Your task to perform on an android device: Open my contact list Image 0: 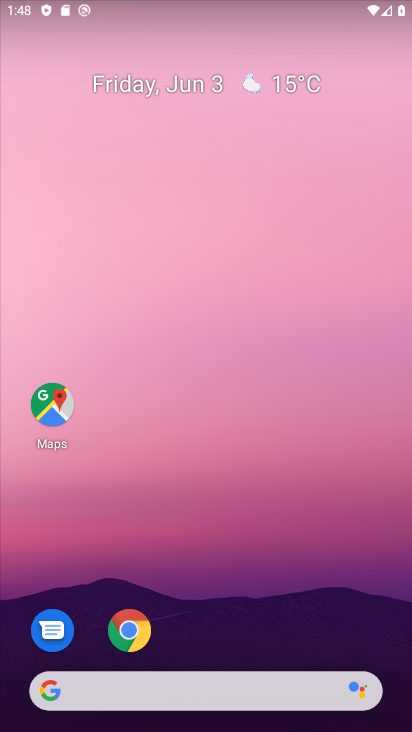
Step 0: drag from (186, 484) to (142, 0)
Your task to perform on an android device: Open my contact list Image 1: 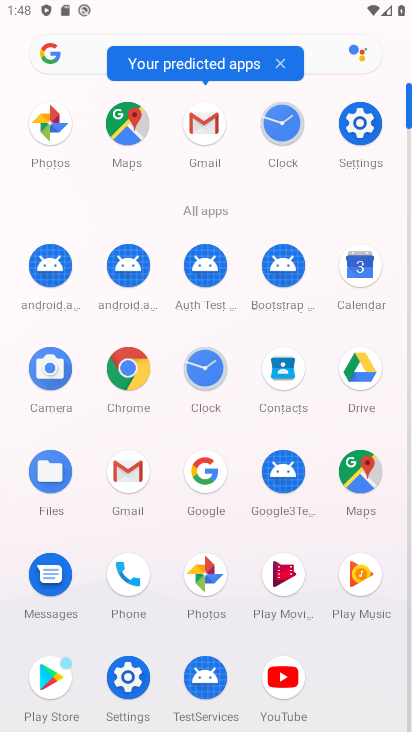
Step 1: drag from (21, 445) to (14, 205)
Your task to perform on an android device: Open my contact list Image 2: 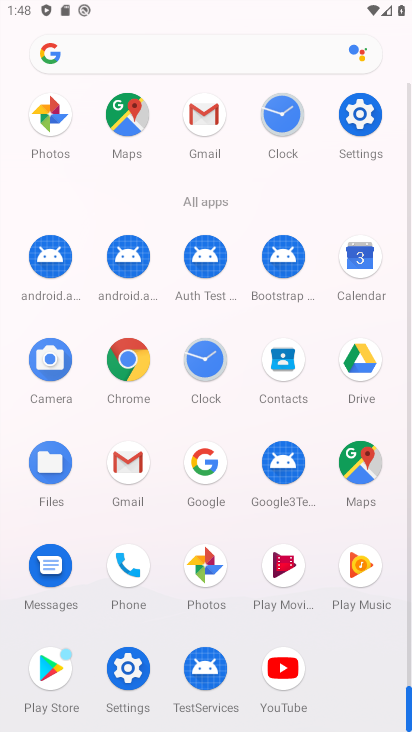
Step 2: click (284, 357)
Your task to perform on an android device: Open my contact list Image 3: 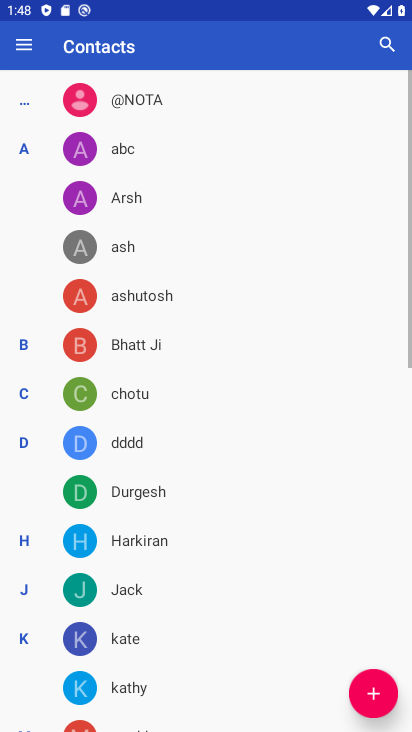
Step 3: task complete